Your task to perform on an android device: Clear the shopping cart on newegg. Image 0: 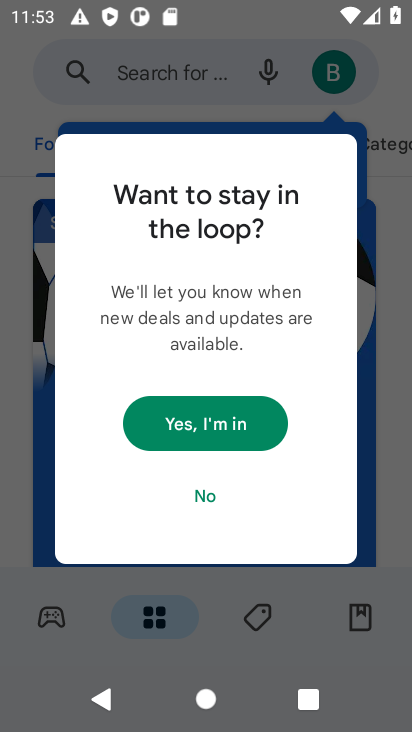
Step 0: press home button
Your task to perform on an android device: Clear the shopping cart on newegg. Image 1: 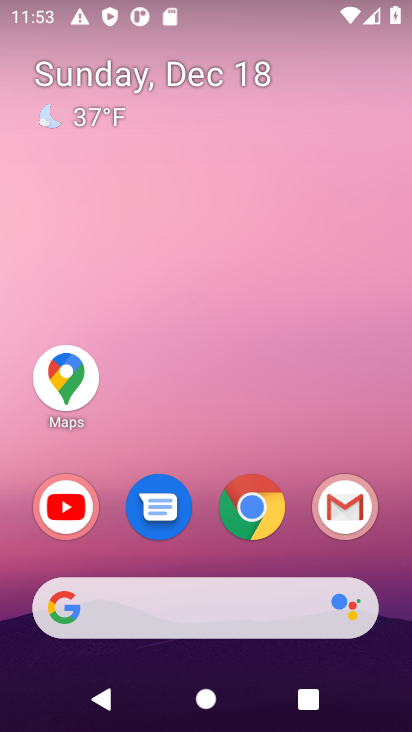
Step 1: click (256, 505)
Your task to perform on an android device: Clear the shopping cart on newegg. Image 2: 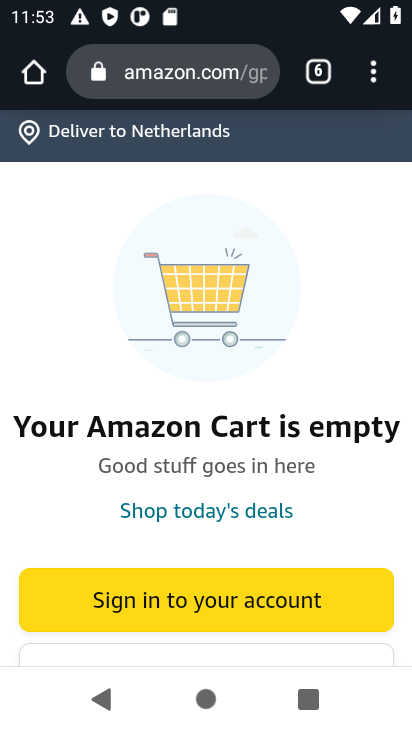
Step 2: click (171, 75)
Your task to perform on an android device: Clear the shopping cart on newegg. Image 3: 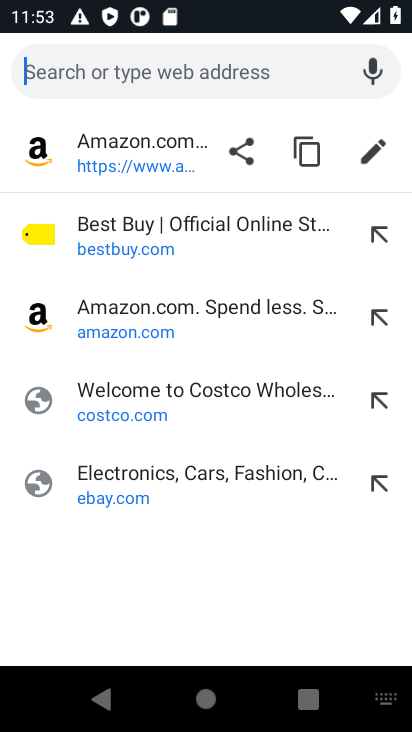
Step 3: type "newegg.com"
Your task to perform on an android device: Clear the shopping cart on newegg. Image 4: 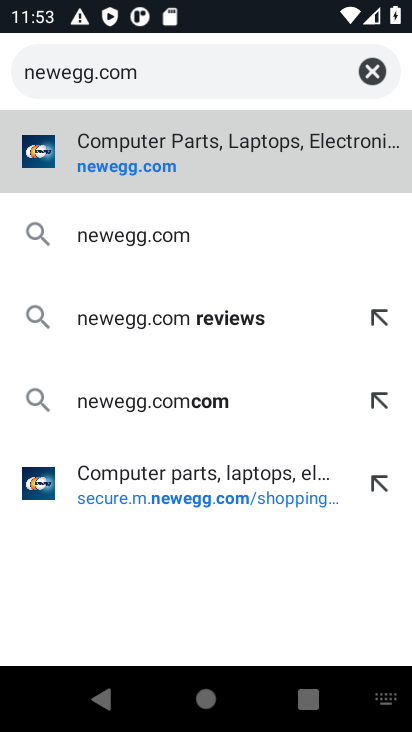
Step 4: click (122, 169)
Your task to perform on an android device: Clear the shopping cart on newegg. Image 5: 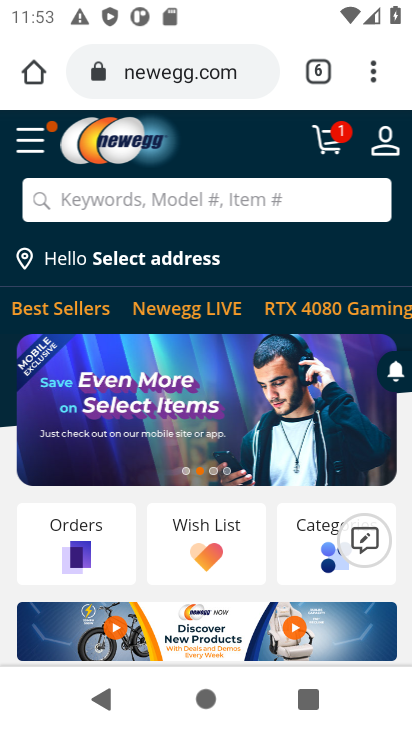
Step 5: click (337, 142)
Your task to perform on an android device: Clear the shopping cart on newegg. Image 6: 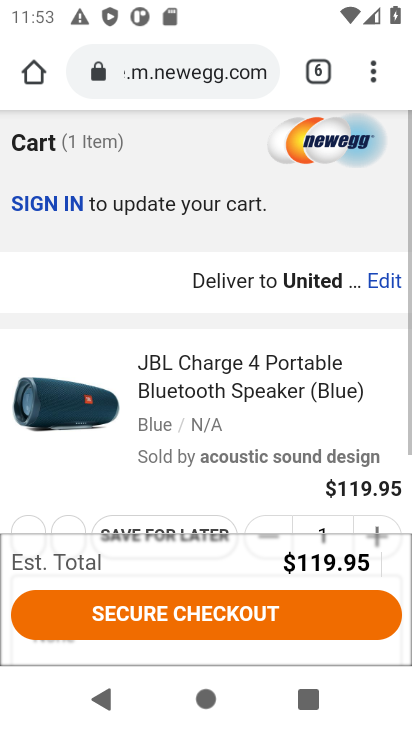
Step 6: drag from (190, 464) to (190, 315)
Your task to perform on an android device: Clear the shopping cart on newegg. Image 7: 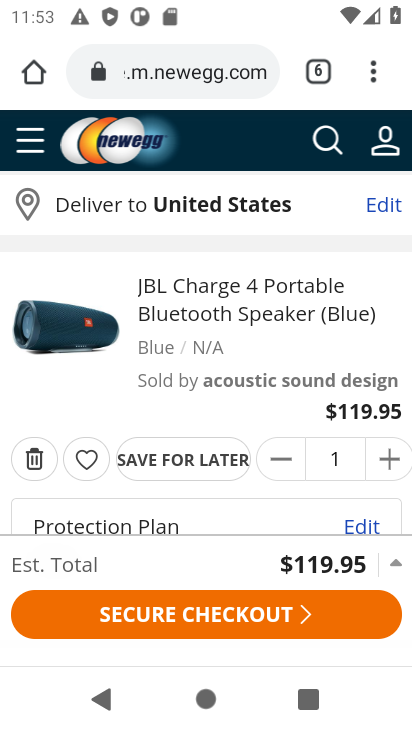
Step 7: click (27, 454)
Your task to perform on an android device: Clear the shopping cart on newegg. Image 8: 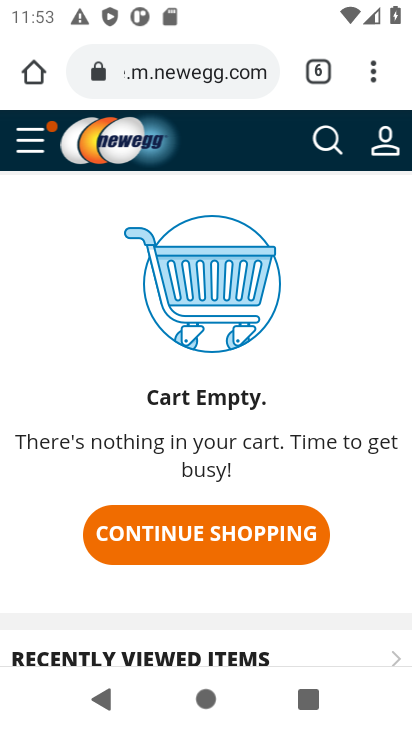
Step 8: task complete